Your task to perform on an android device: Do I have any events today? Image 0: 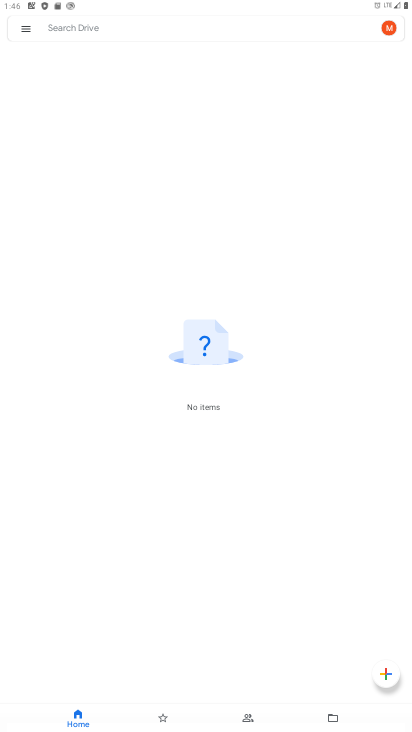
Step 0: press home button
Your task to perform on an android device: Do I have any events today? Image 1: 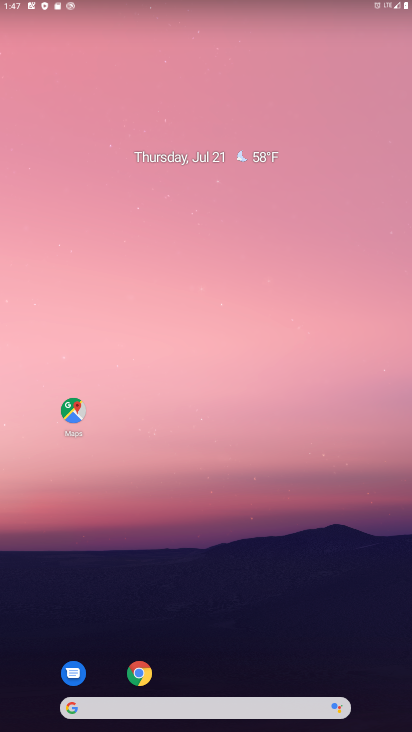
Step 1: drag from (218, 655) to (232, 177)
Your task to perform on an android device: Do I have any events today? Image 2: 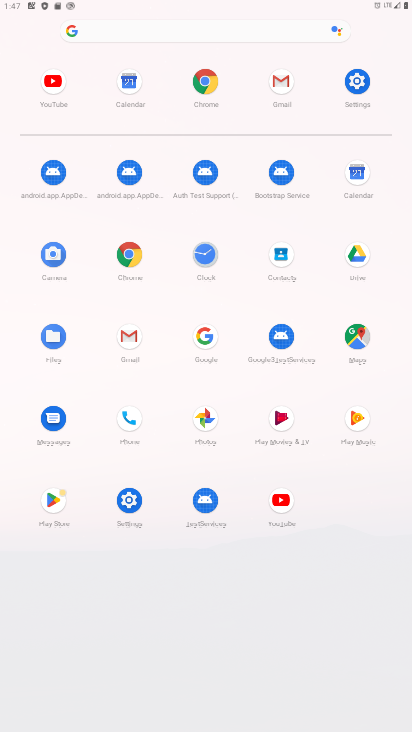
Step 2: click (348, 165)
Your task to perform on an android device: Do I have any events today? Image 3: 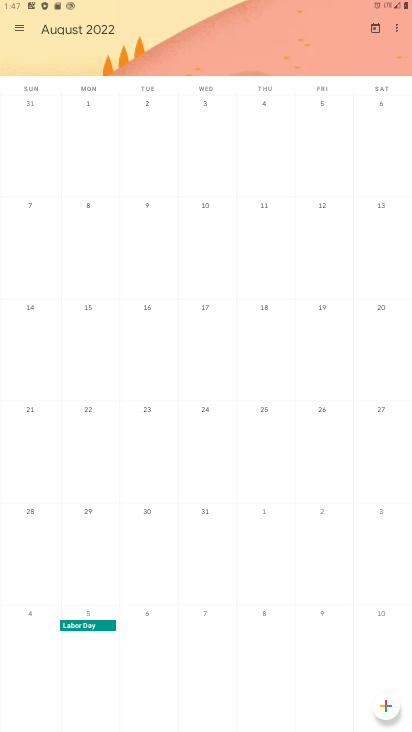
Step 3: drag from (45, 255) to (379, 296)
Your task to perform on an android device: Do I have any events today? Image 4: 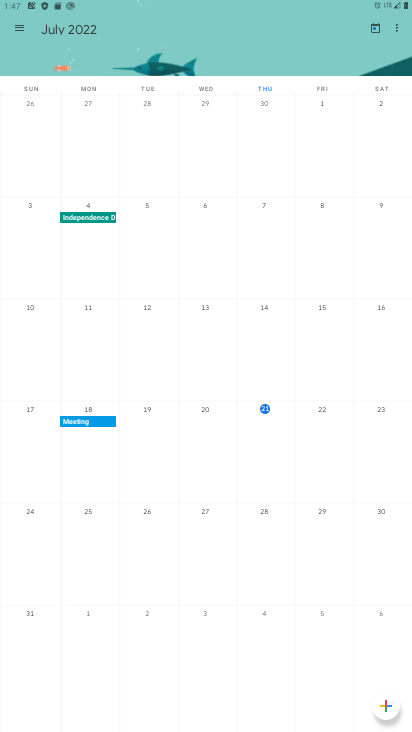
Step 4: click (263, 414)
Your task to perform on an android device: Do I have any events today? Image 5: 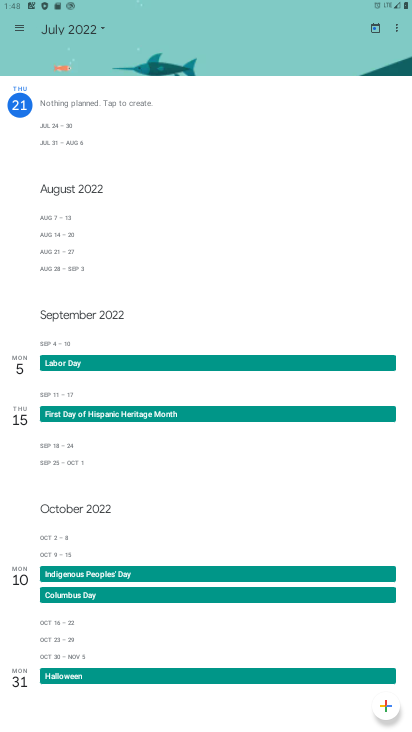
Step 5: task complete